Your task to perform on an android device: What's the latest video from Game Informer? Image 0: 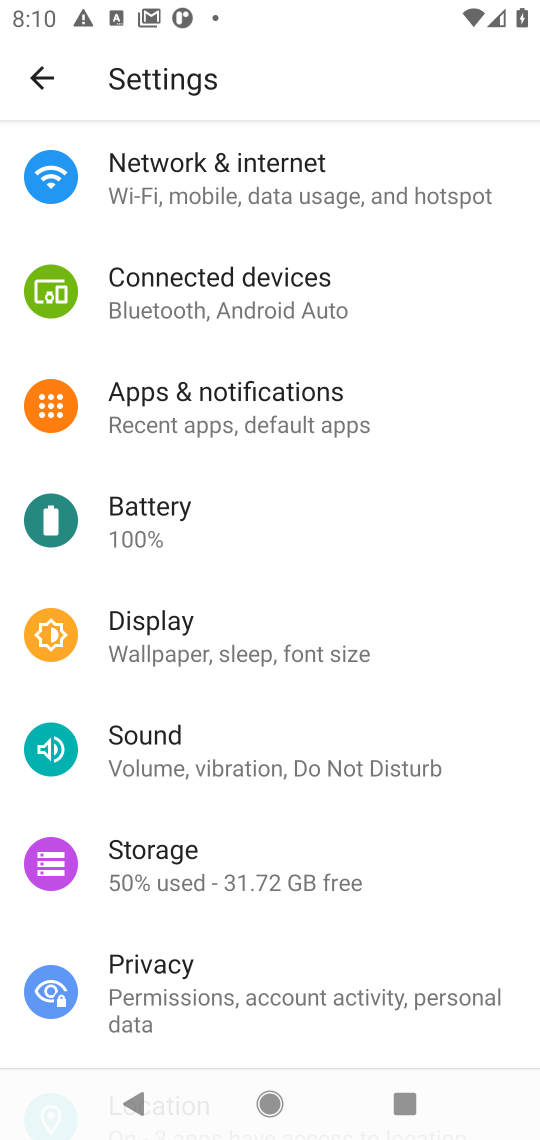
Step 0: press back button
Your task to perform on an android device: What's the latest video from Game Informer? Image 1: 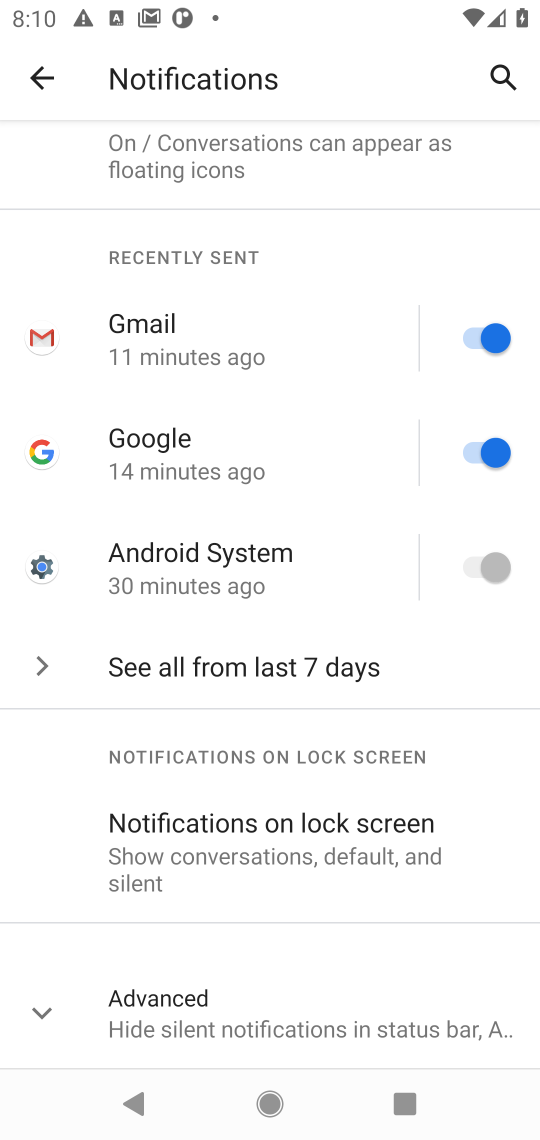
Step 1: press back button
Your task to perform on an android device: What's the latest video from Game Informer? Image 2: 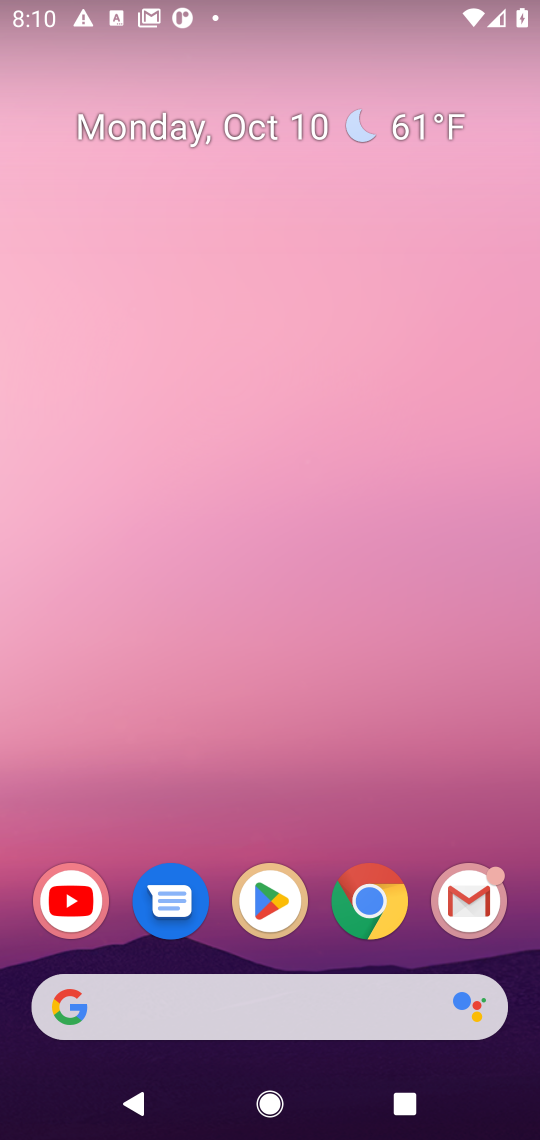
Step 2: press back button
Your task to perform on an android device: What's the latest video from Game Informer? Image 3: 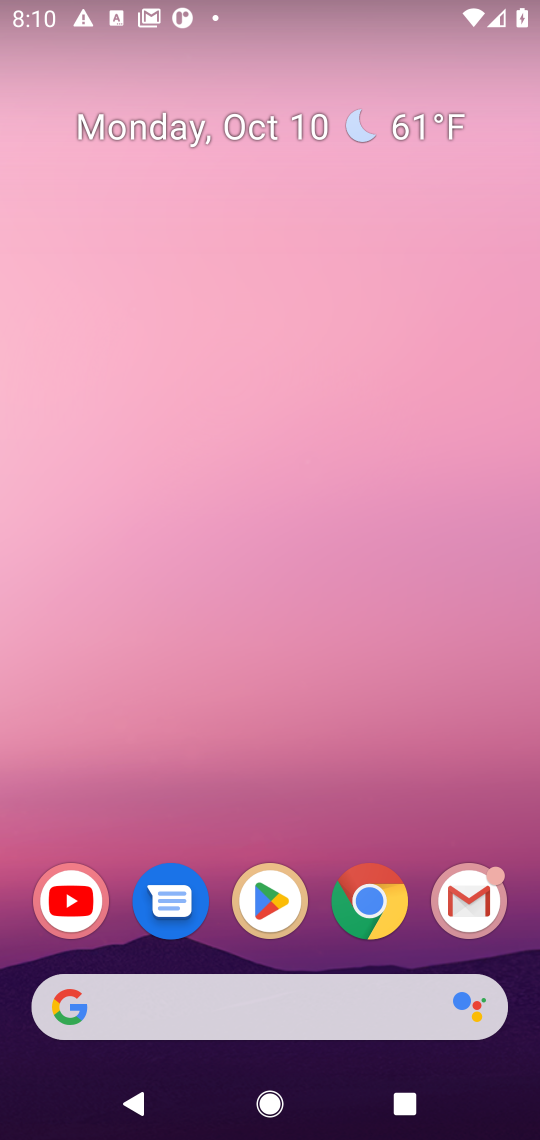
Step 3: click (384, 1017)
Your task to perform on an android device: What's the latest video from Game Informer? Image 4: 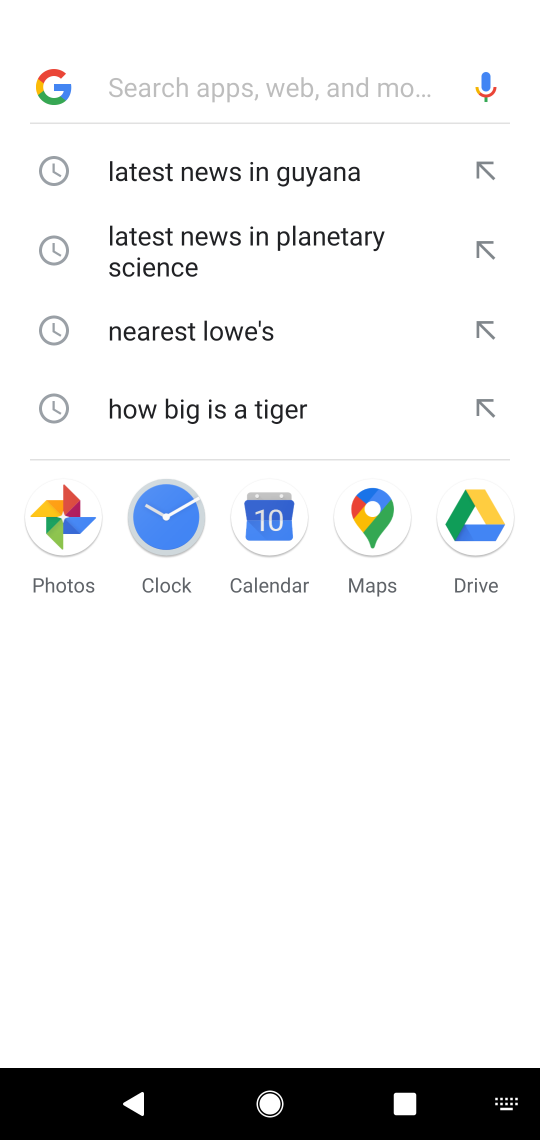
Step 4: type "latest video from Game Informer"
Your task to perform on an android device: What's the latest video from Game Informer? Image 5: 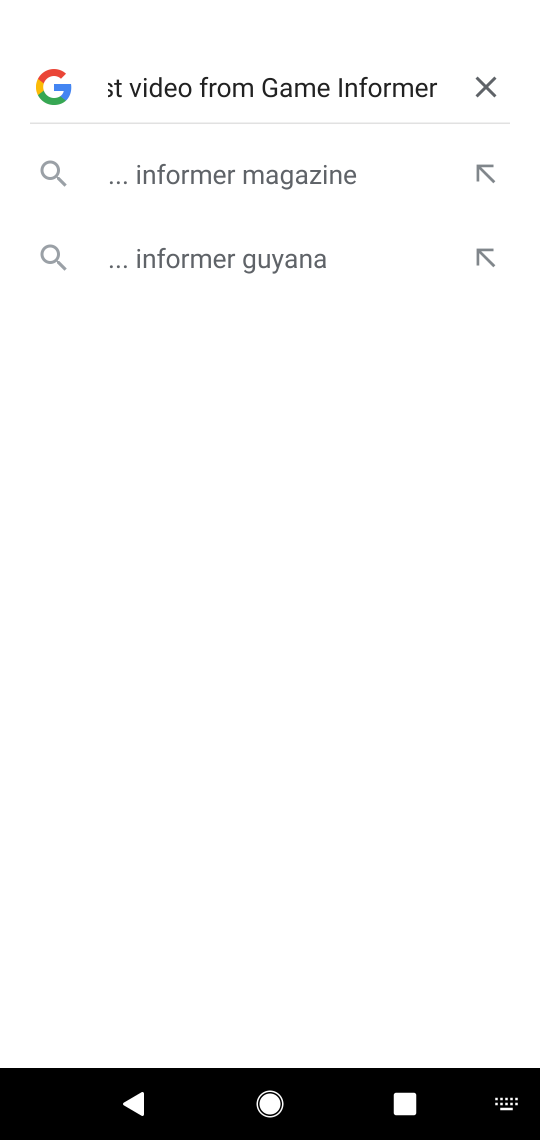
Step 5: type ""
Your task to perform on an android device: What's the latest video from Game Informer? Image 6: 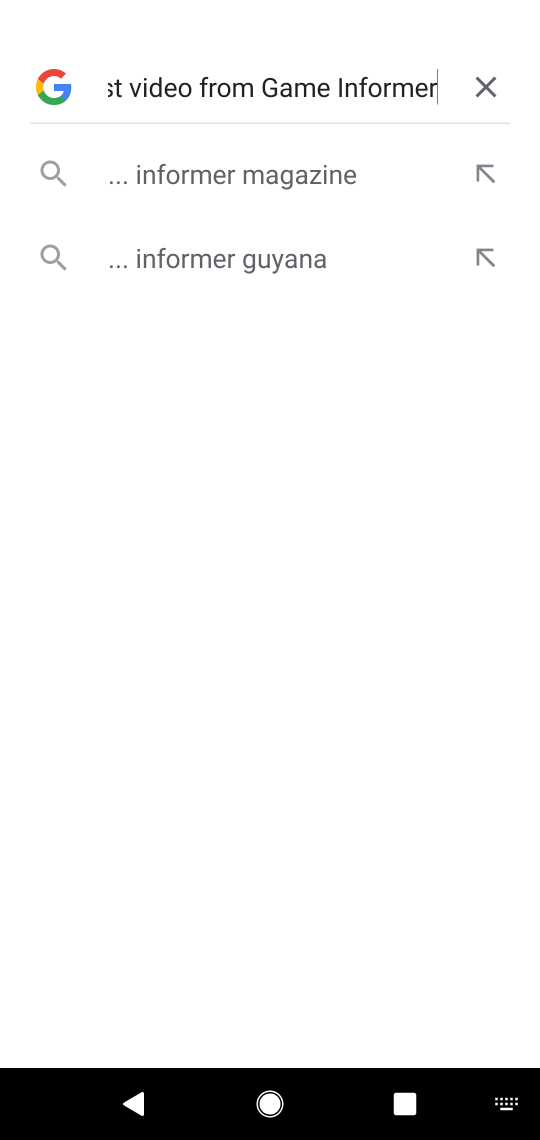
Step 6: press enter
Your task to perform on an android device: What's the latest video from Game Informer? Image 7: 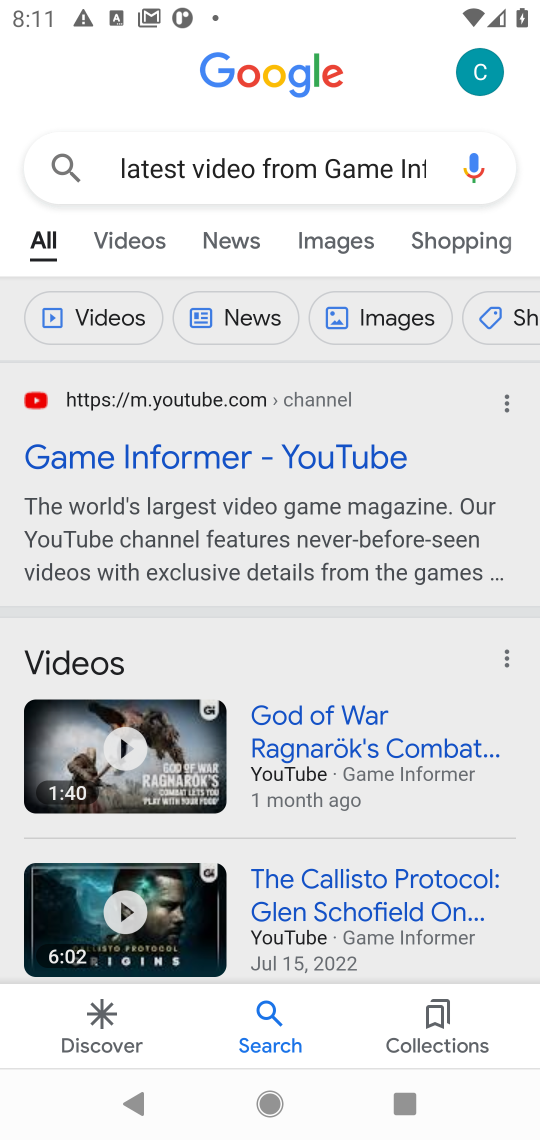
Step 7: click (196, 469)
Your task to perform on an android device: What's the latest video from Game Informer? Image 8: 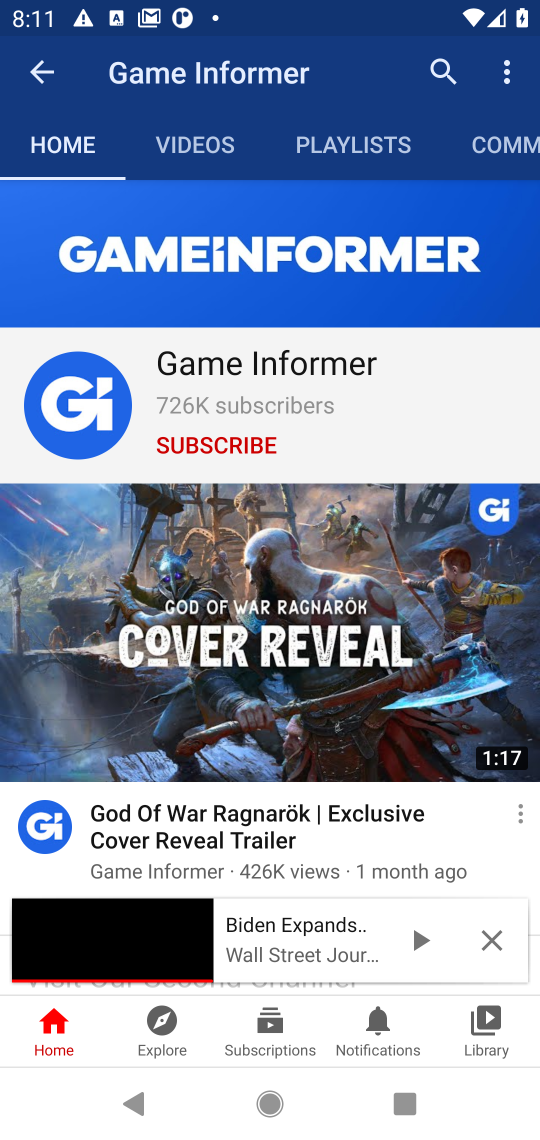
Step 8: click (491, 931)
Your task to perform on an android device: What's the latest video from Game Informer? Image 9: 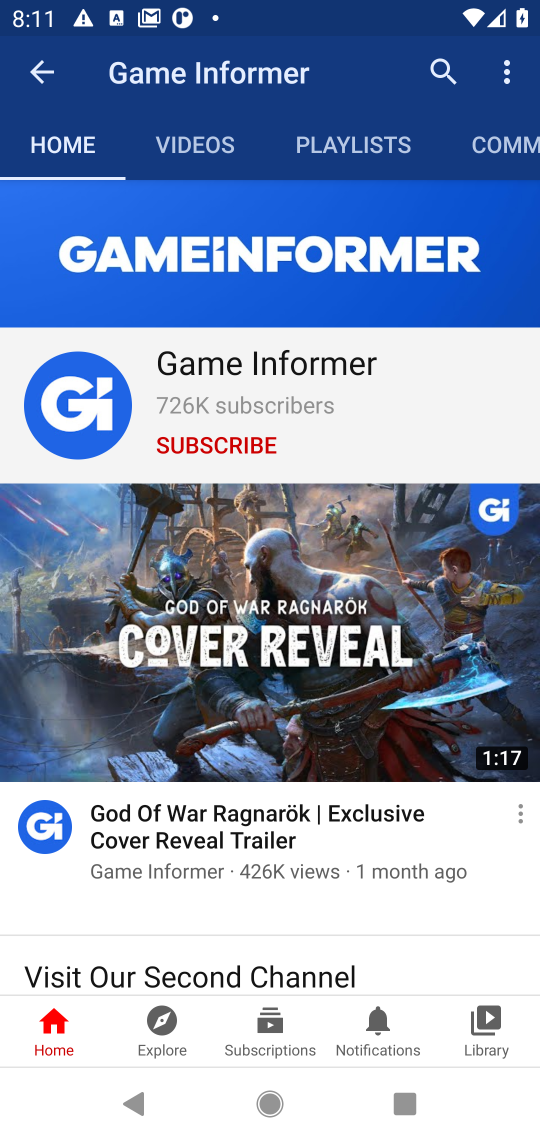
Step 9: drag from (76, 774) to (76, 596)
Your task to perform on an android device: What's the latest video from Game Informer? Image 10: 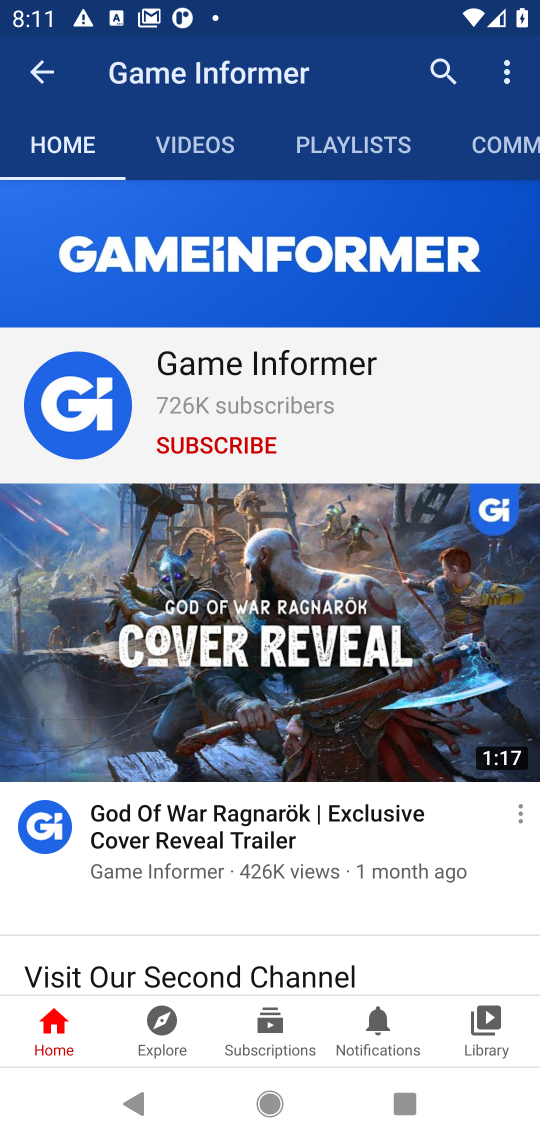
Step 10: drag from (154, 727) to (159, 292)
Your task to perform on an android device: What's the latest video from Game Informer? Image 11: 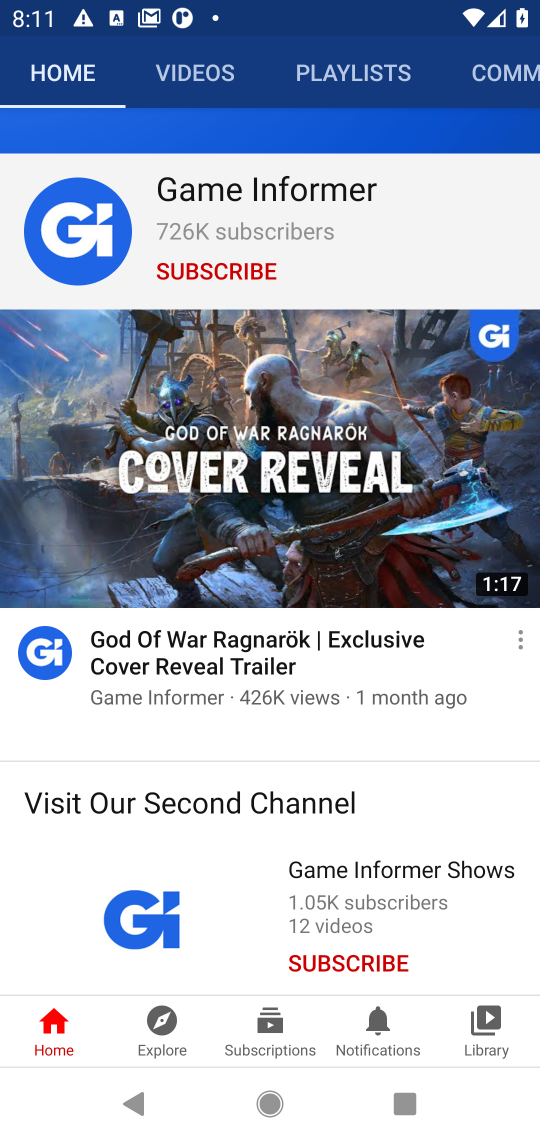
Step 11: click (188, 75)
Your task to perform on an android device: What's the latest video from Game Informer? Image 12: 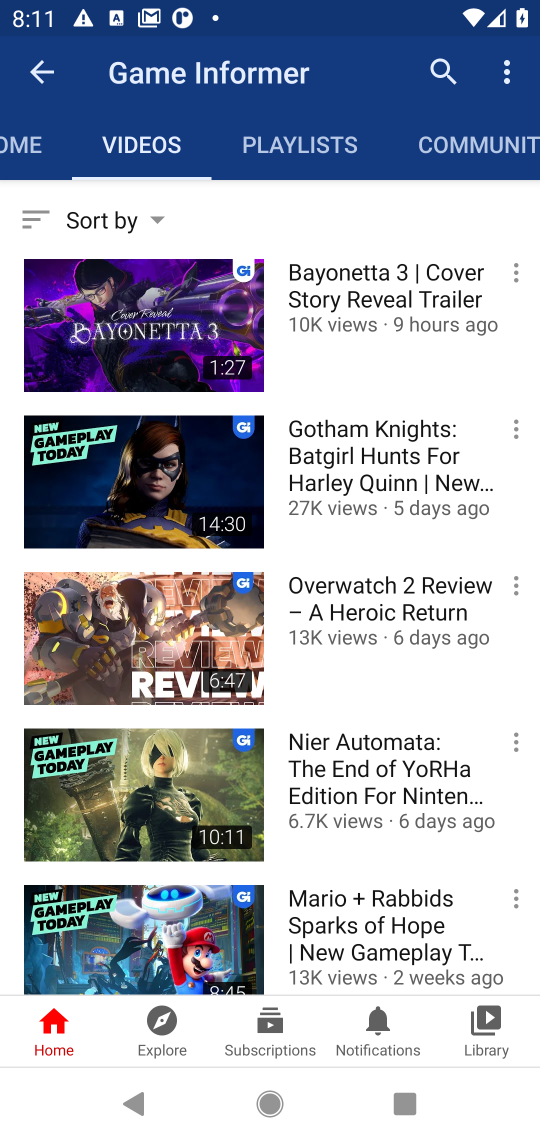
Step 12: click (354, 280)
Your task to perform on an android device: What's the latest video from Game Informer? Image 13: 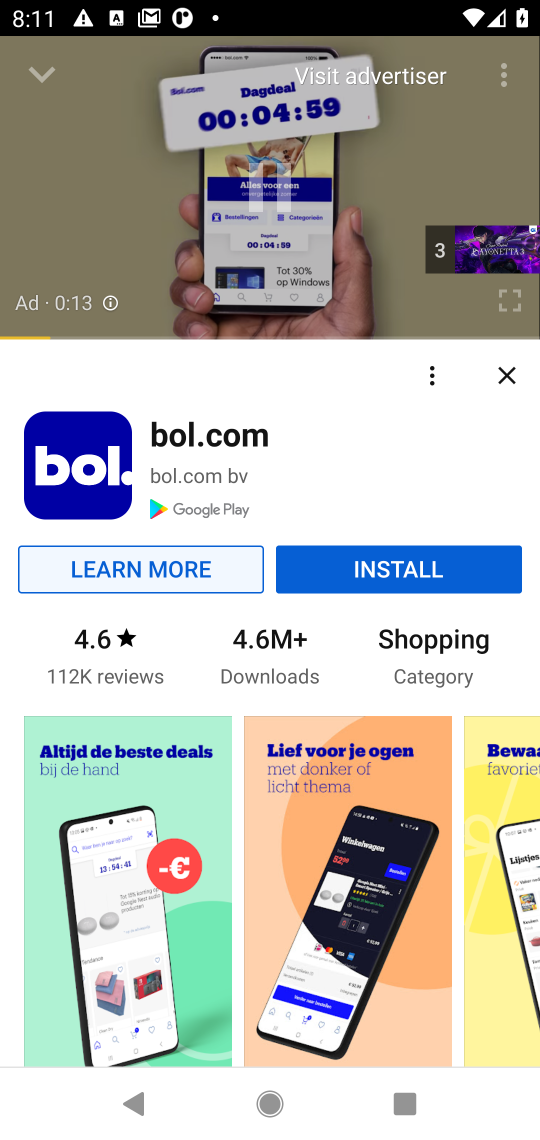
Step 13: click (502, 366)
Your task to perform on an android device: What's the latest video from Game Informer? Image 14: 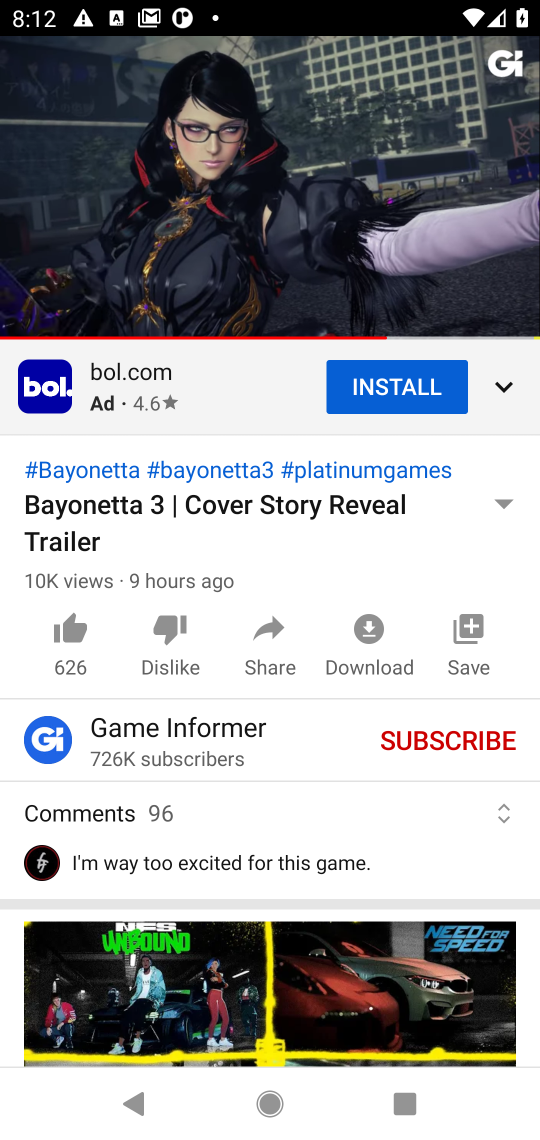
Step 14: task complete